Your task to perform on an android device: Clear all items from cart on newegg.com. Search for "bose soundlink" on newegg.com, select the first entry, add it to the cart, then select checkout. Image 0: 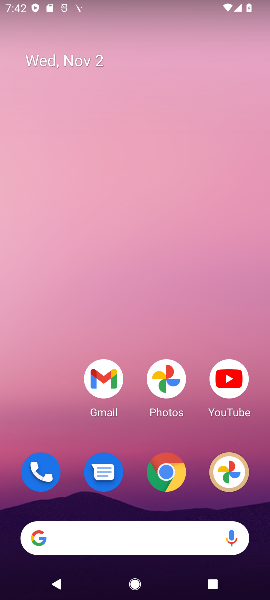
Step 0: click (156, 466)
Your task to perform on an android device: Clear all items from cart on newegg.com. Search for "bose soundlink" on newegg.com, select the first entry, add it to the cart, then select checkout. Image 1: 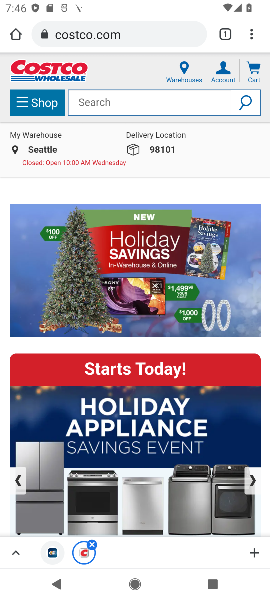
Step 1: task complete